Your task to perform on an android device: add a label to a message in the gmail app Image 0: 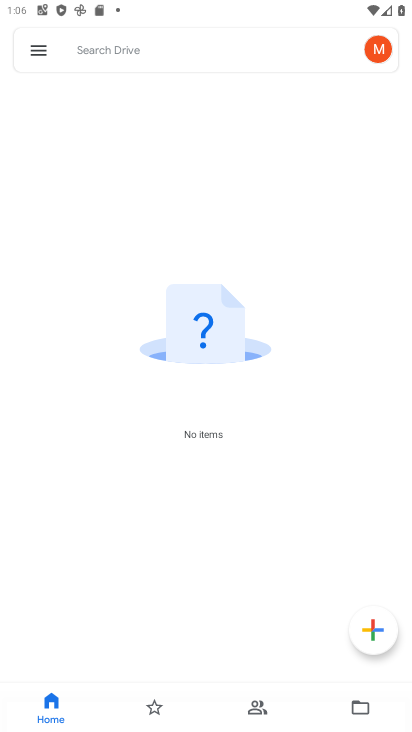
Step 0: press home button
Your task to perform on an android device: add a label to a message in the gmail app Image 1: 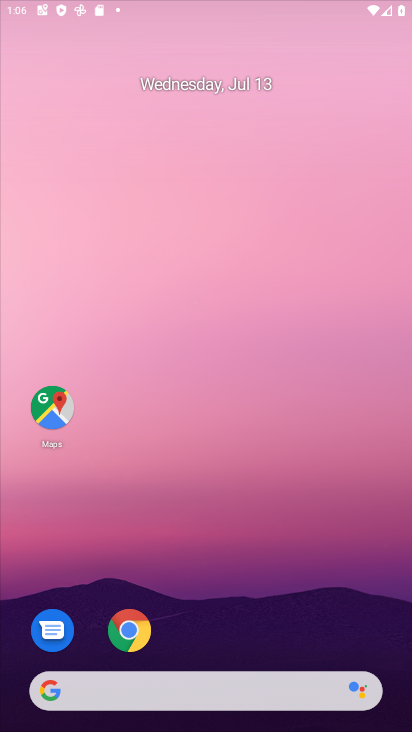
Step 1: drag from (389, 651) to (205, 91)
Your task to perform on an android device: add a label to a message in the gmail app Image 2: 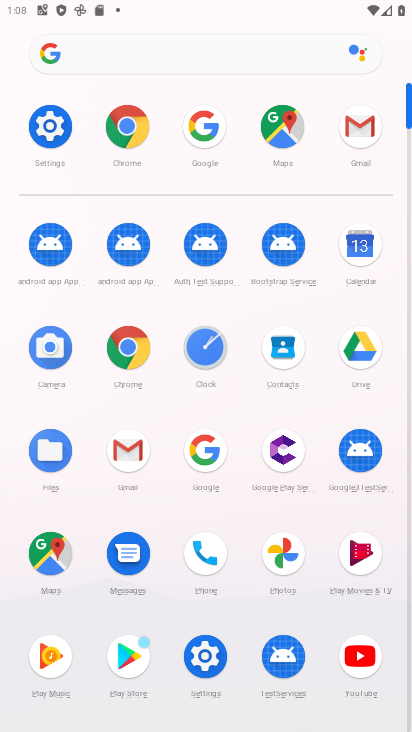
Step 2: click (132, 458)
Your task to perform on an android device: add a label to a message in the gmail app Image 3: 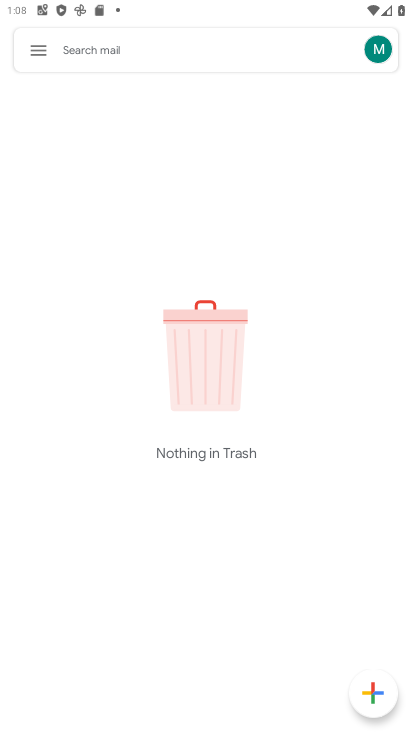
Step 3: task complete